Your task to perform on an android device: What's the weather? Image 0: 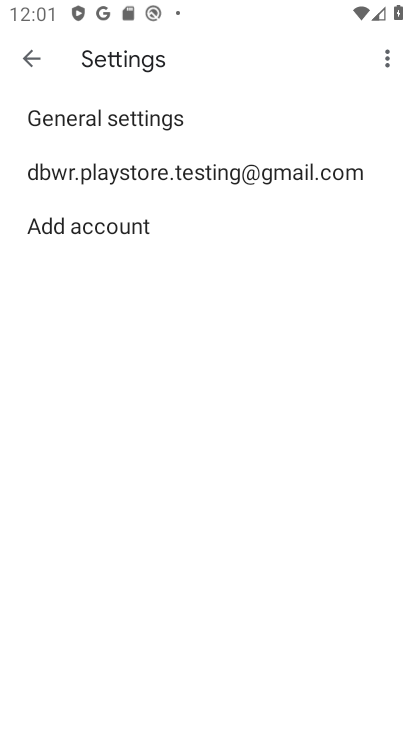
Step 0: press home button
Your task to perform on an android device: What's the weather? Image 1: 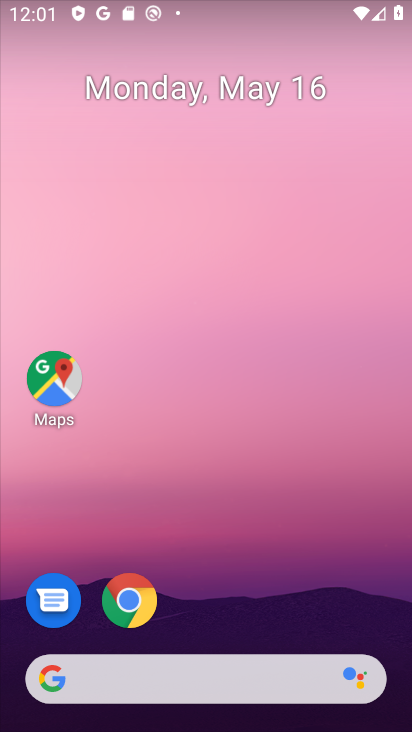
Step 1: drag from (207, 722) to (213, 235)
Your task to perform on an android device: What's the weather? Image 2: 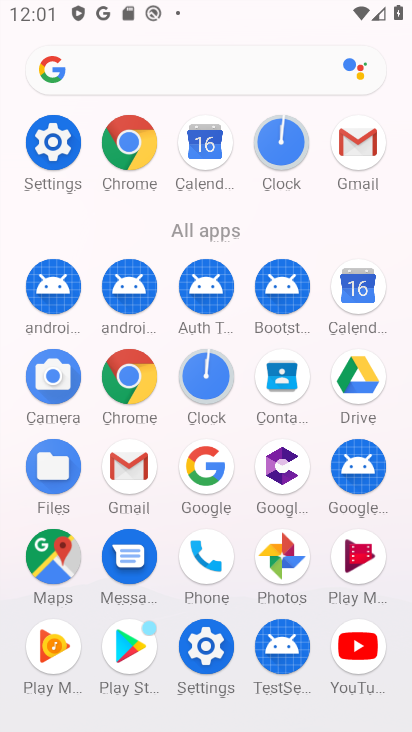
Step 2: click (208, 466)
Your task to perform on an android device: What's the weather? Image 3: 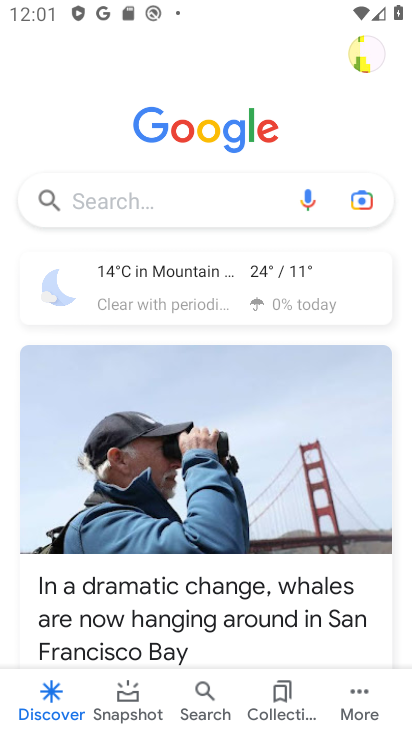
Step 3: click (59, 290)
Your task to perform on an android device: What's the weather? Image 4: 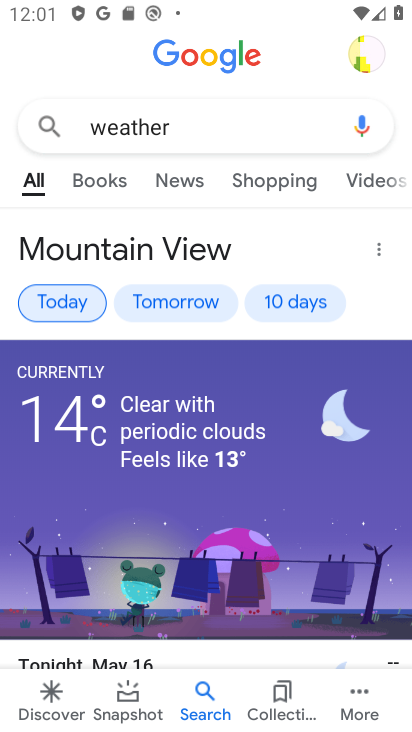
Step 4: task complete